Your task to perform on an android device: Go to network settings Image 0: 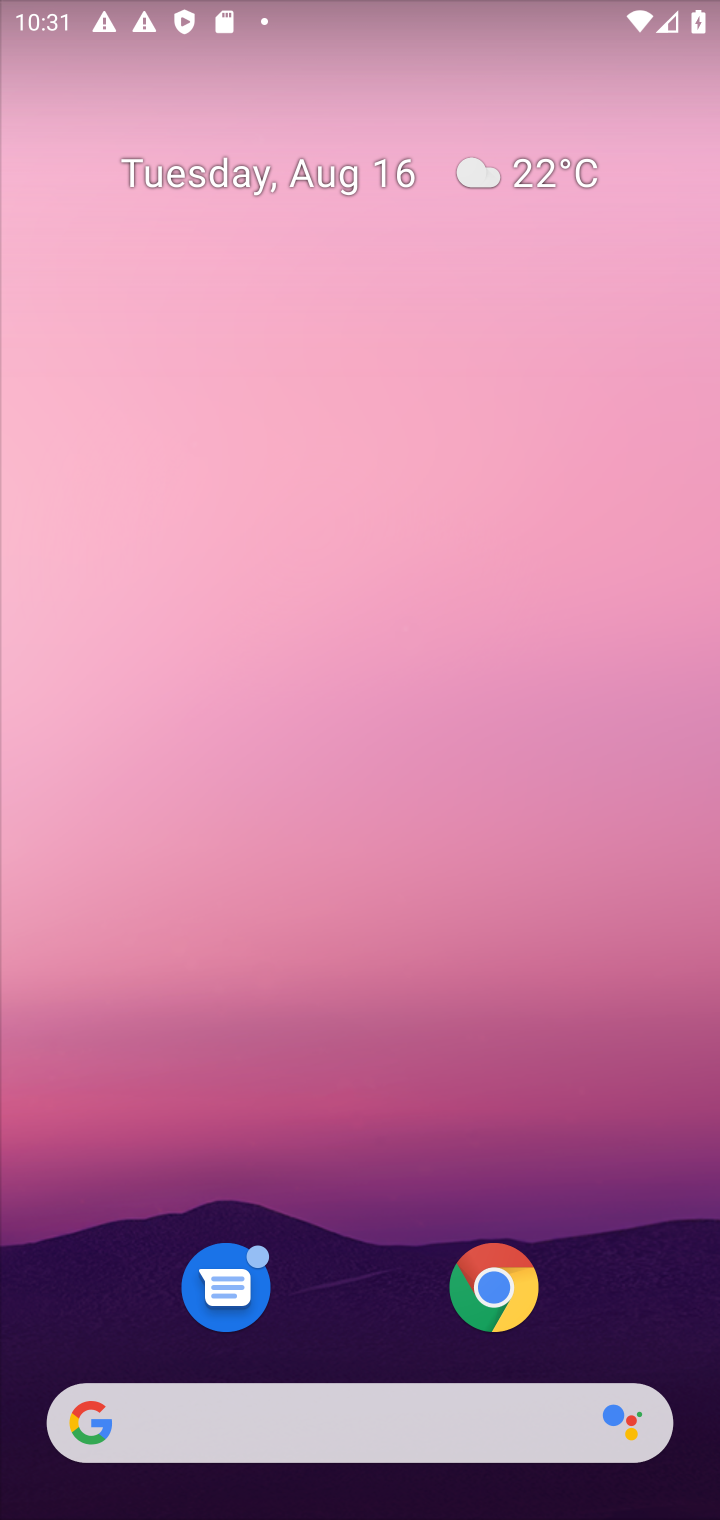
Step 0: drag from (640, 1117) to (544, 236)
Your task to perform on an android device: Go to network settings Image 1: 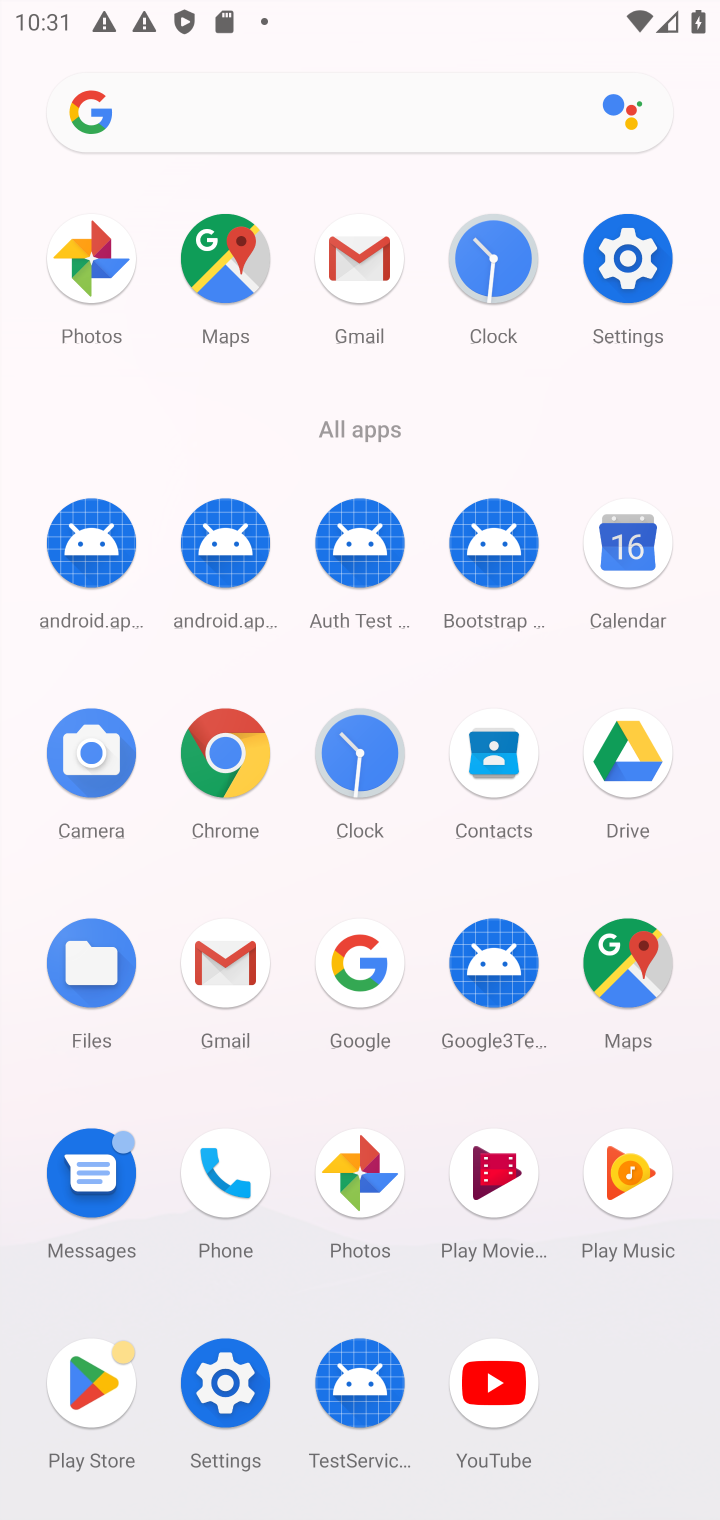
Step 1: click (223, 1388)
Your task to perform on an android device: Go to network settings Image 2: 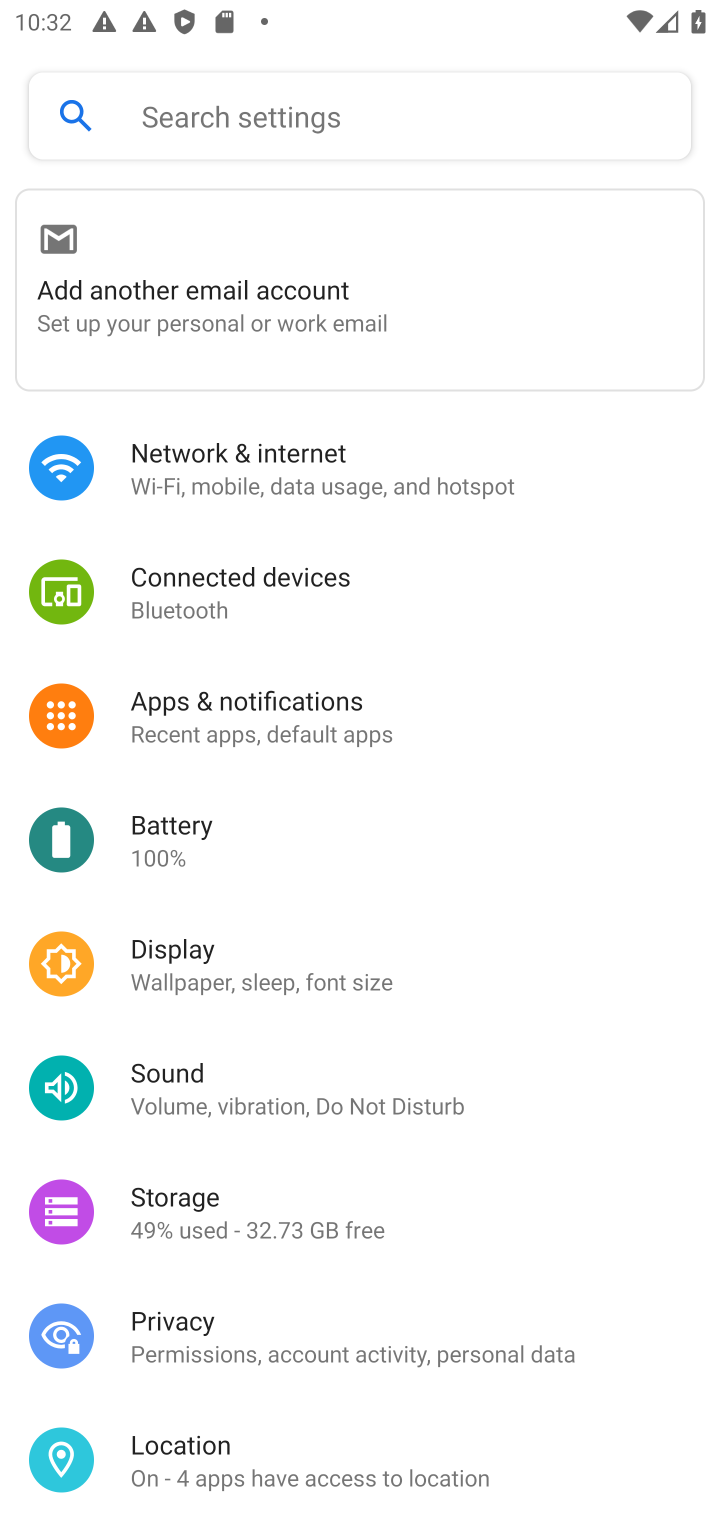
Step 2: click (228, 459)
Your task to perform on an android device: Go to network settings Image 3: 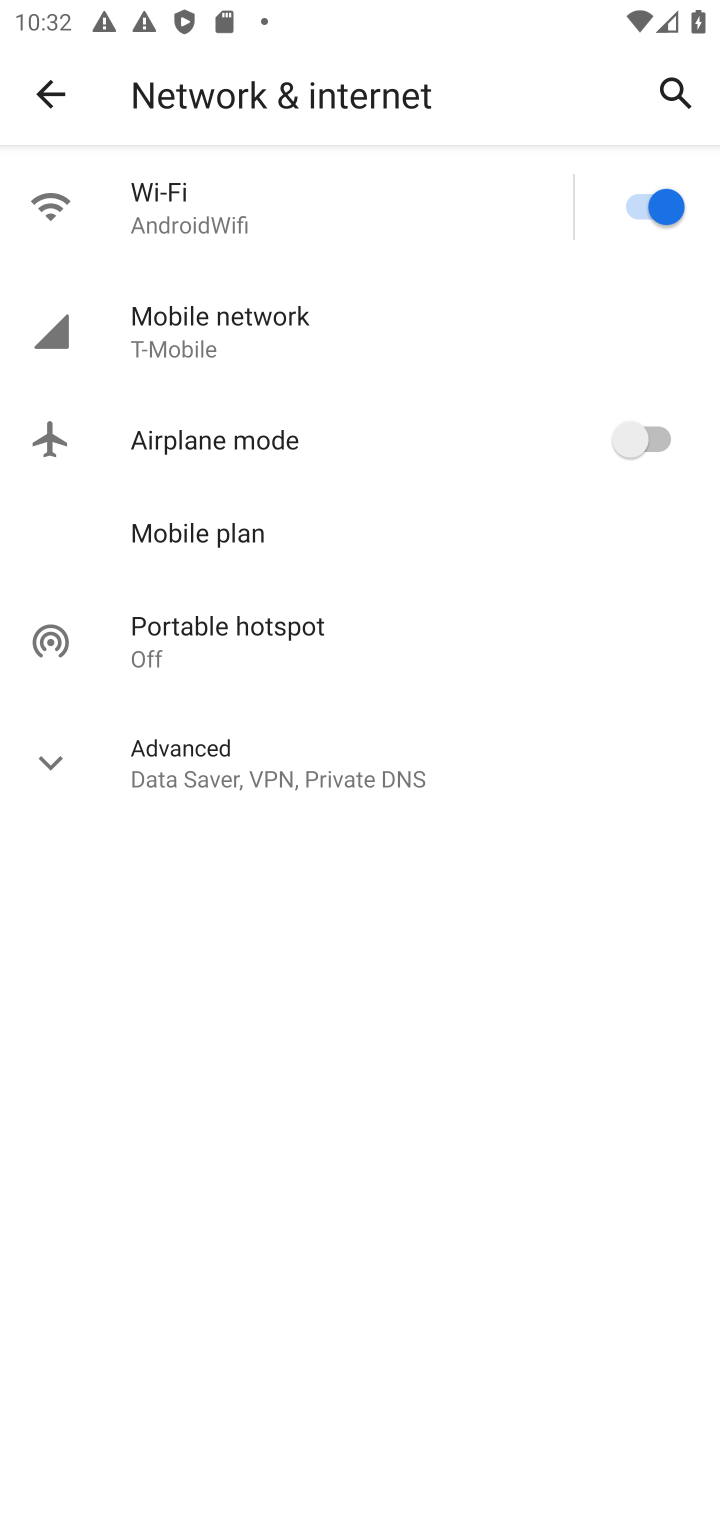
Step 3: click (172, 236)
Your task to perform on an android device: Go to network settings Image 4: 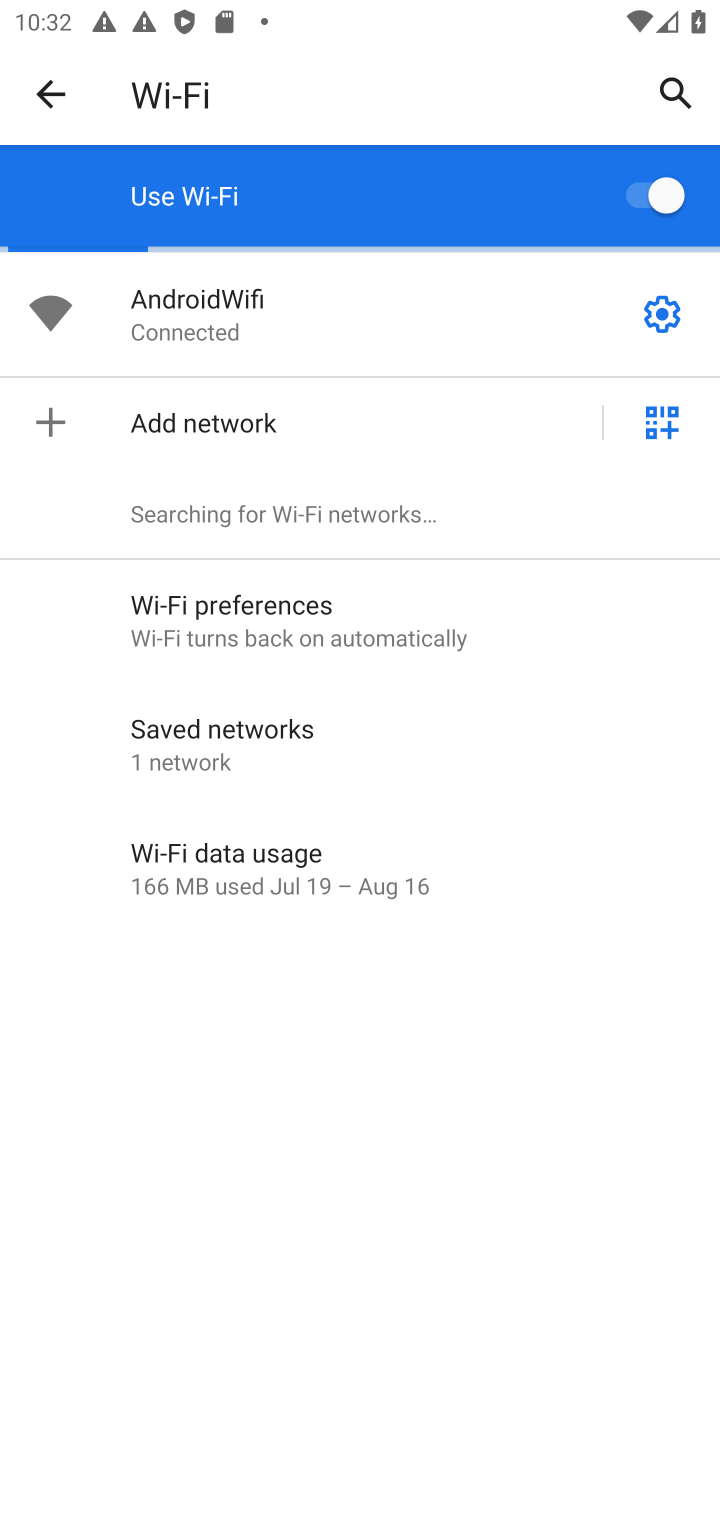
Step 4: press back button
Your task to perform on an android device: Go to network settings Image 5: 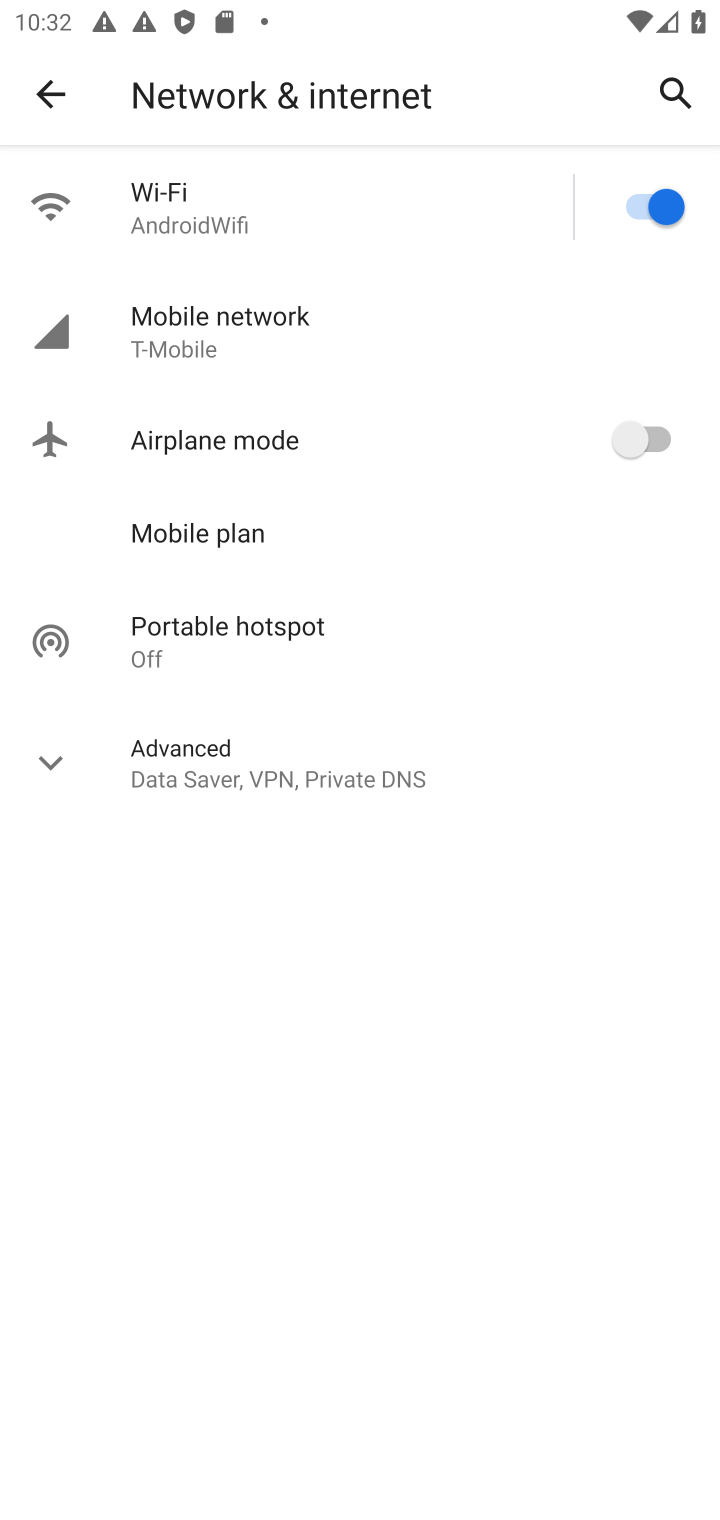
Step 5: click (193, 313)
Your task to perform on an android device: Go to network settings Image 6: 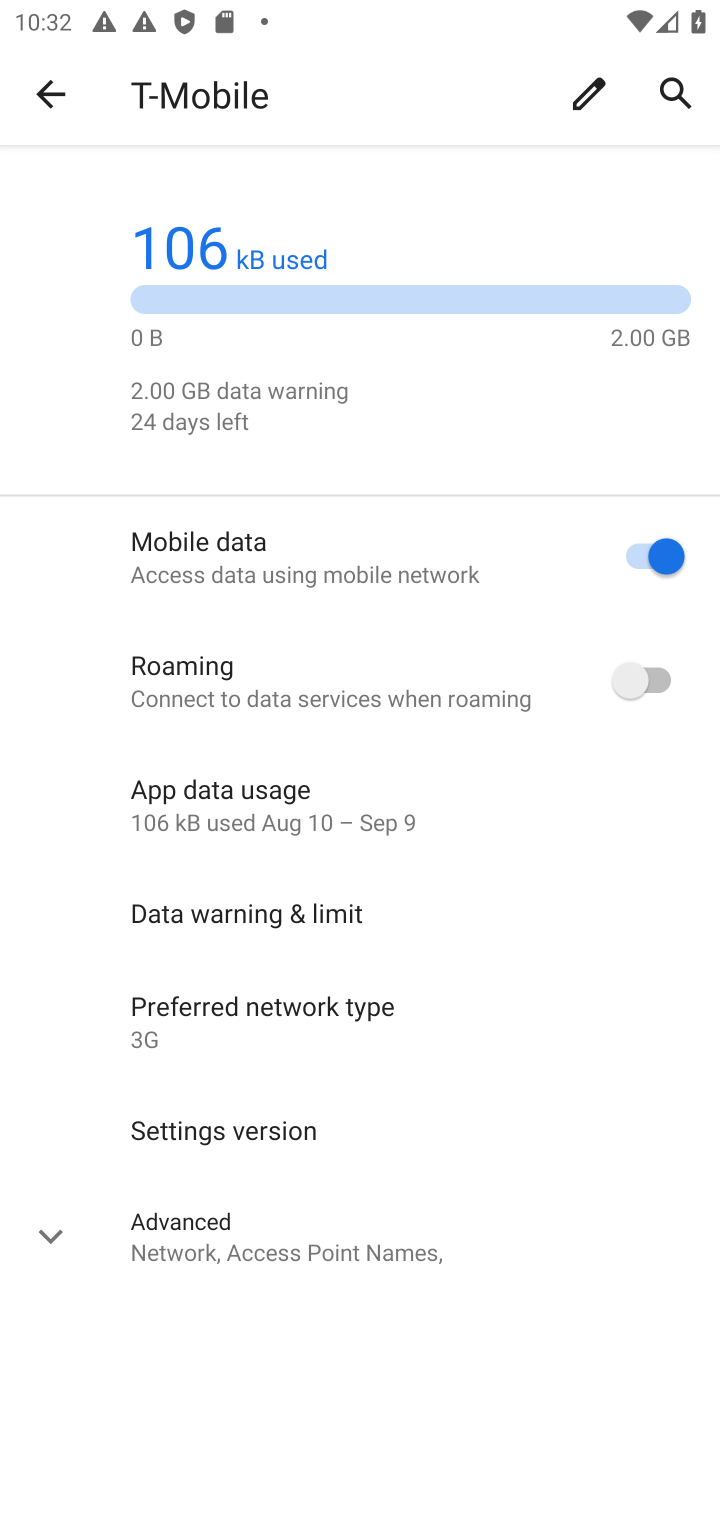
Step 6: task complete